Your task to perform on an android device: add a contact Image 0: 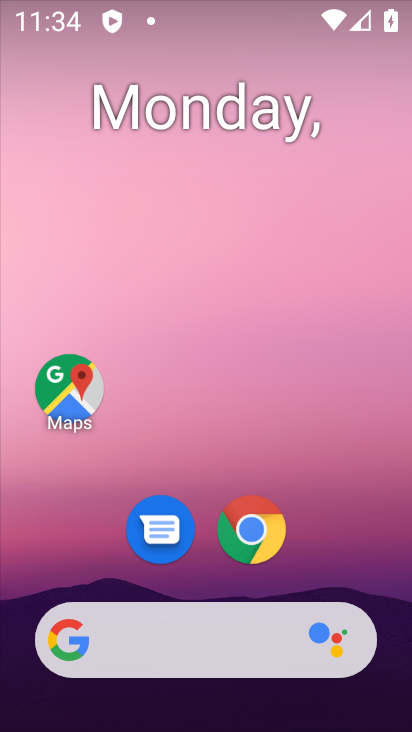
Step 0: drag from (338, 518) to (345, 87)
Your task to perform on an android device: add a contact Image 1: 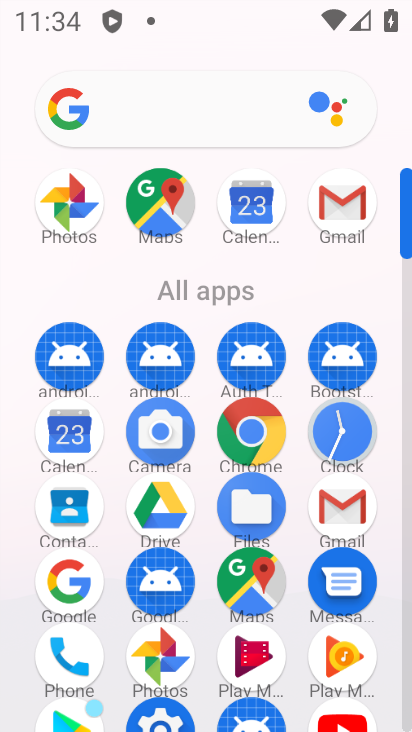
Step 1: drag from (178, 658) to (221, 283)
Your task to perform on an android device: add a contact Image 2: 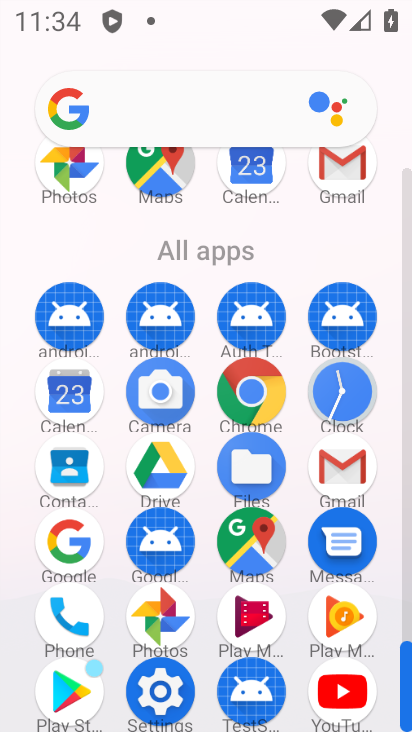
Step 2: click (66, 484)
Your task to perform on an android device: add a contact Image 3: 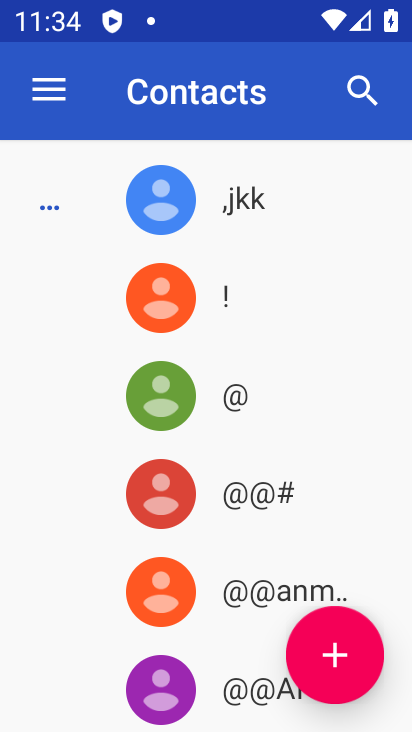
Step 3: click (337, 645)
Your task to perform on an android device: add a contact Image 4: 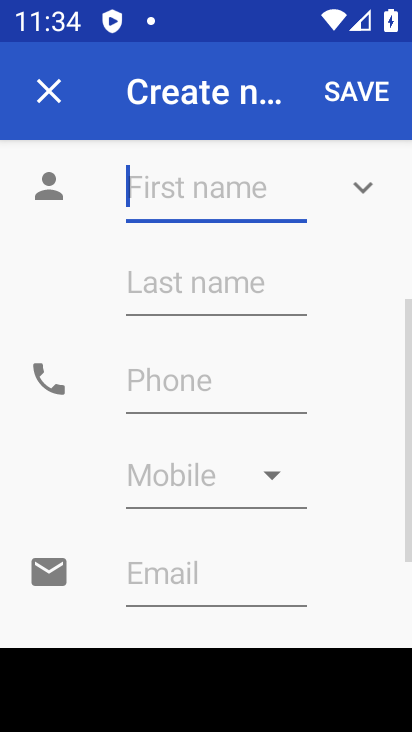
Step 4: click (207, 173)
Your task to perform on an android device: add a contact Image 5: 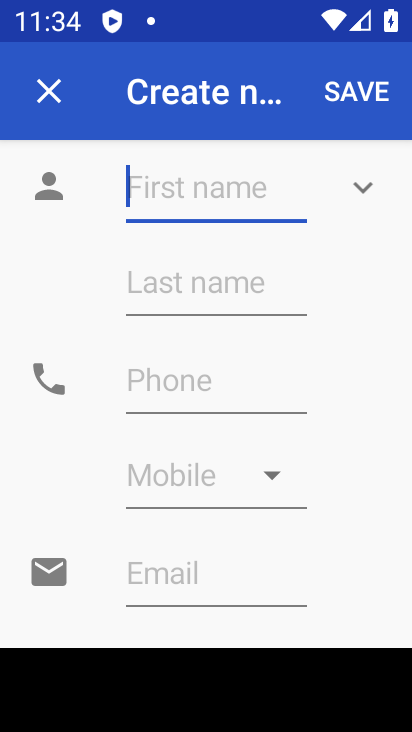
Step 5: type "maharez"
Your task to perform on an android device: add a contact Image 6: 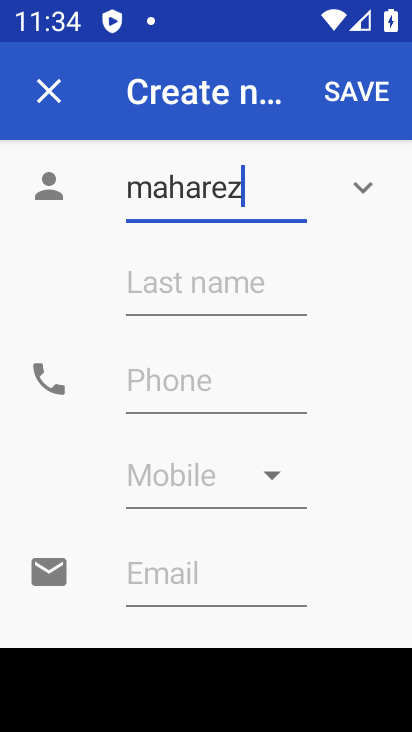
Step 6: click (197, 384)
Your task to perform on an android device: add a contact Image 7: 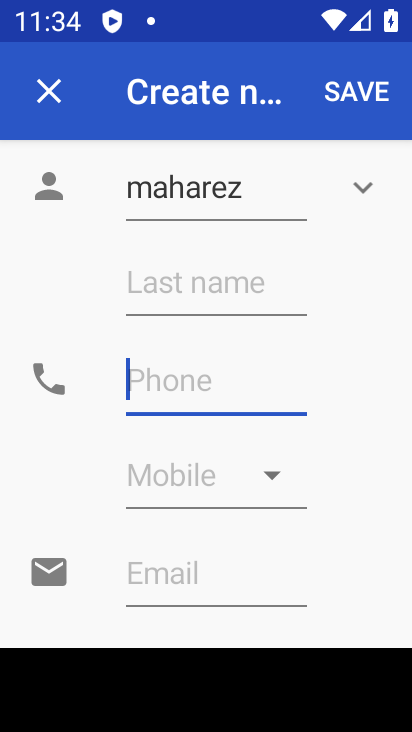
Step 7: type "32445677543"
Your task to perform on an android device: add a contact Image 8: 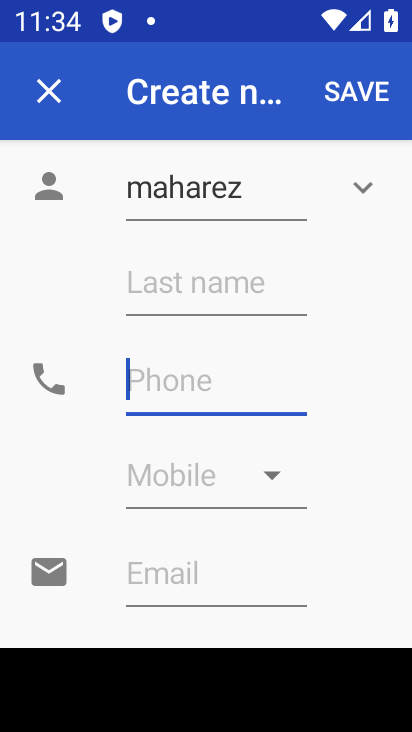
Step 8: click (360, 95)
Your task to perform on an android device: add a contact Image 9: 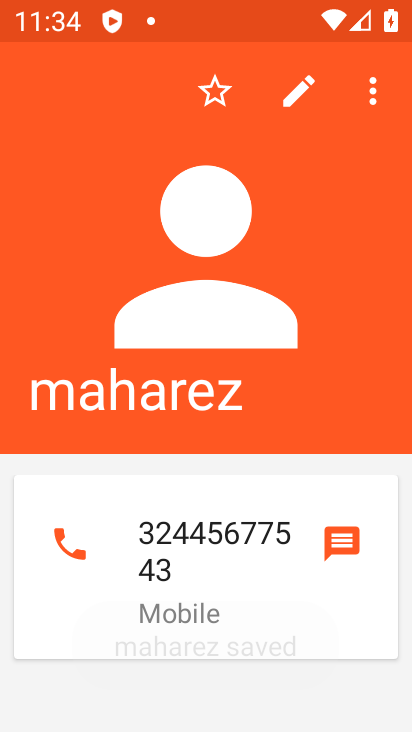
Step 9: task complete